Your task to perform on an android device: stop showing notifications on the lock screen Image 0: 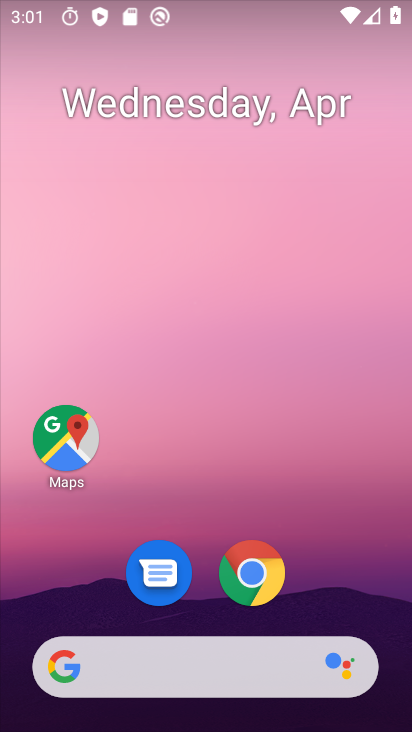
Step 0: drag from (214, 695) to (218, 28)
Your task to perform on an android device: stop showing notifications on the lock screen Image 1: 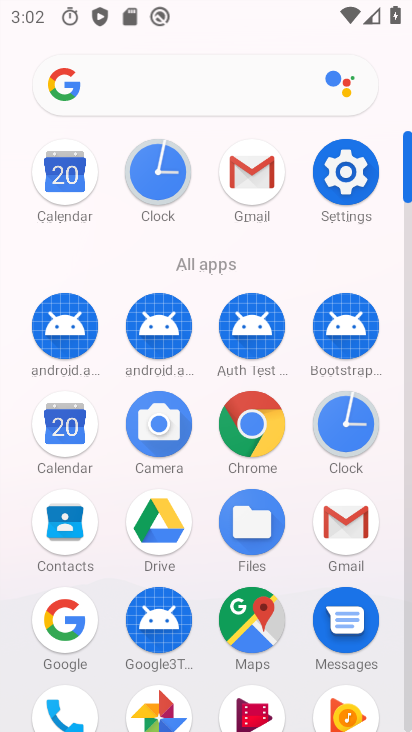
Step 1: click (339, 176)
Your task to perform on an android device: stop showing notifications on the lock screen Image 2: 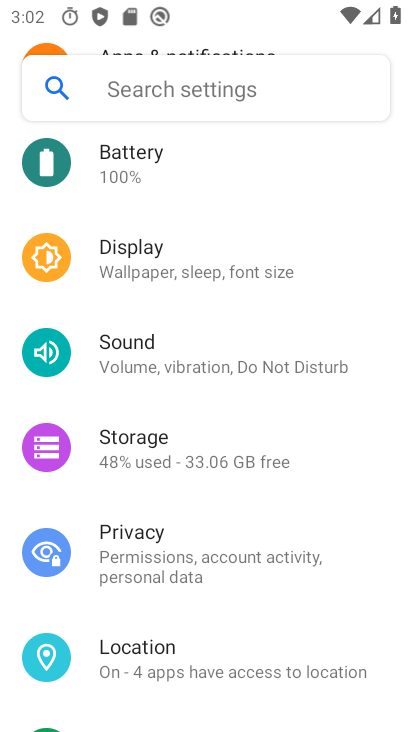
Step 2: drag from (187, 178) to (184, 500)
Your task to perform on an android device: stop showing notifications on the lock screen Image 3: 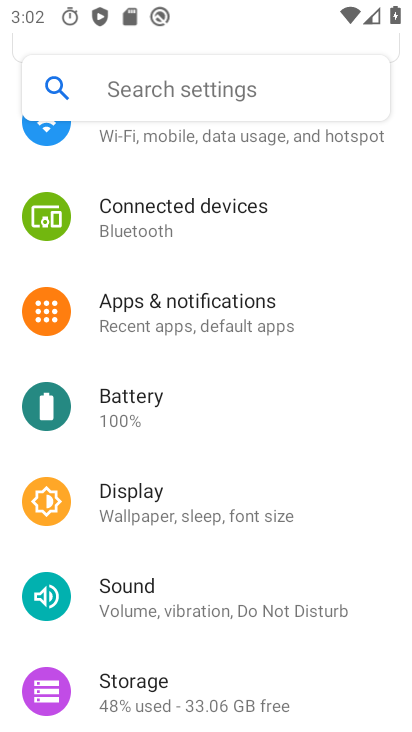
Step 3: click (170, 316)
Your task to perform on an android device: stop showing notifications on the lock screen Image 4: 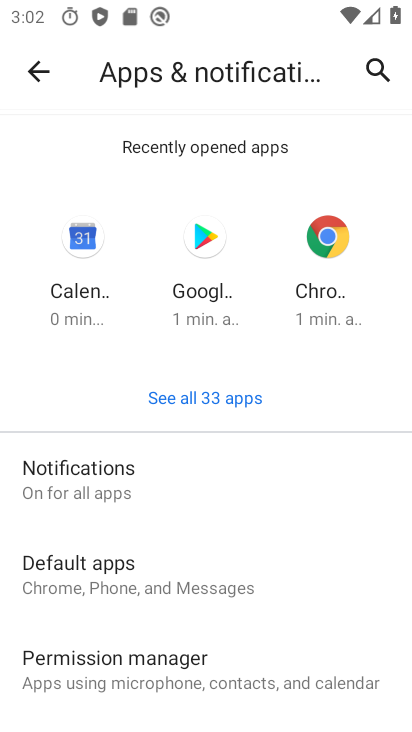
Step 4: click (75, 478)
Your task to perform on an android device: stop showing notifications on the lock screen Image 5: 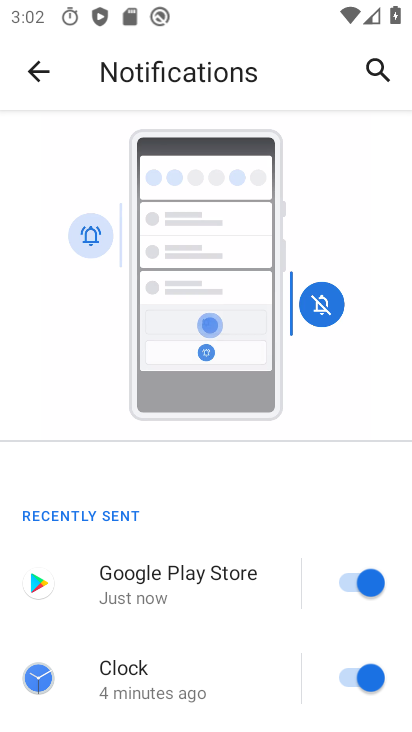
Step 5: drag from (199, 671) to (206, 318)
Your task to perform on an android device: stop showing notifications on the lock screen Image 6: 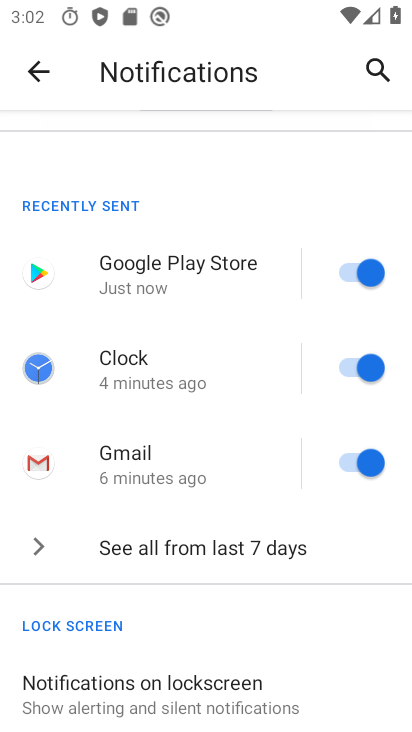
Step 6: drag from (231, 656) to (202, 386)
Your task to perform on an android device: stop showing notifications on the lock screen Image 7: 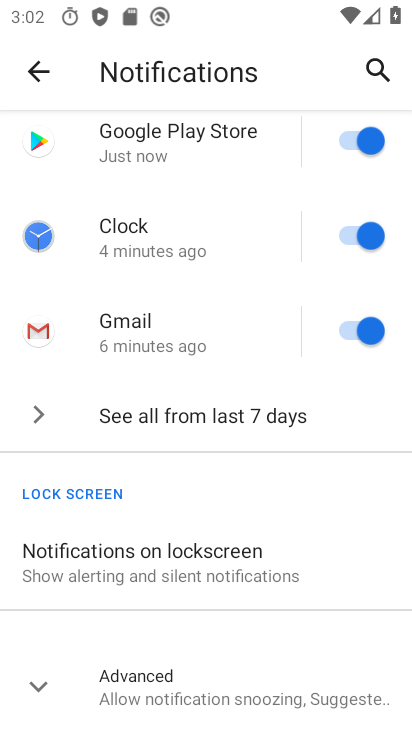
Step 7: click (163, 566)
Your task to perform on an android device: stop showing notifications on the lock screen Image 8: 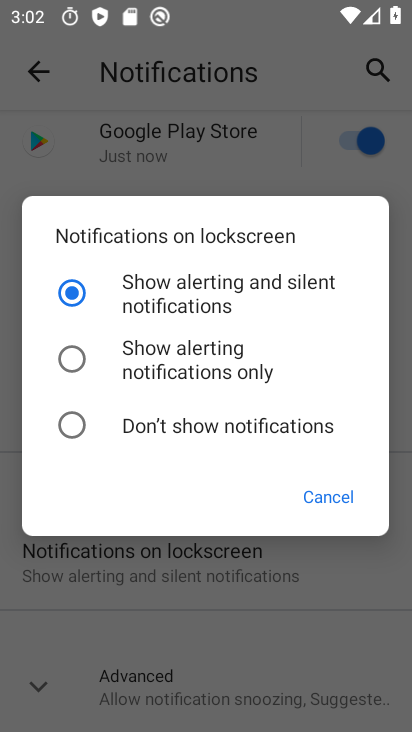
Step 8: click (72, 426)
Your task to perform on an android device: stop showing notifications on the lock screen Image 9: 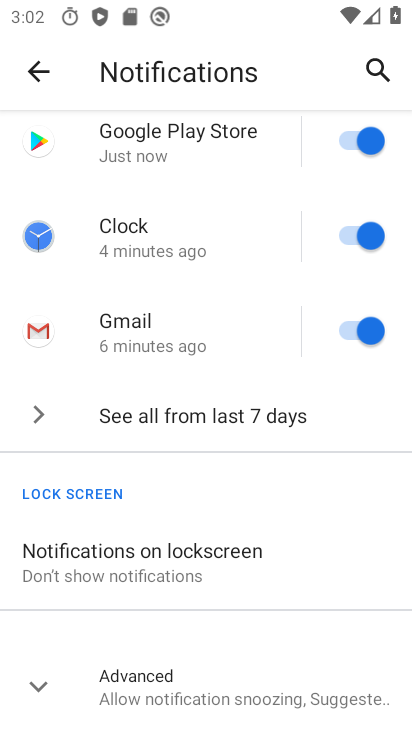
Step 9: task complete